Your task to perform on an android device: turn off priority inbox in the gmail app Image 0: 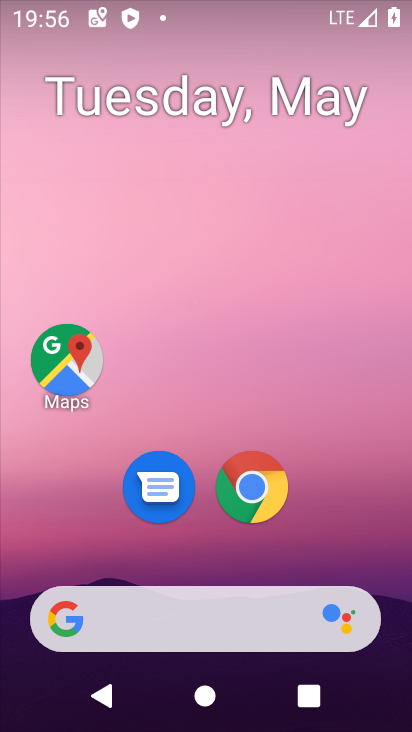
Step 0: drag from (325, 494) to (260, 116)
Your task to perform on an android device: turn off priority inbox in the gmail app Image 1: 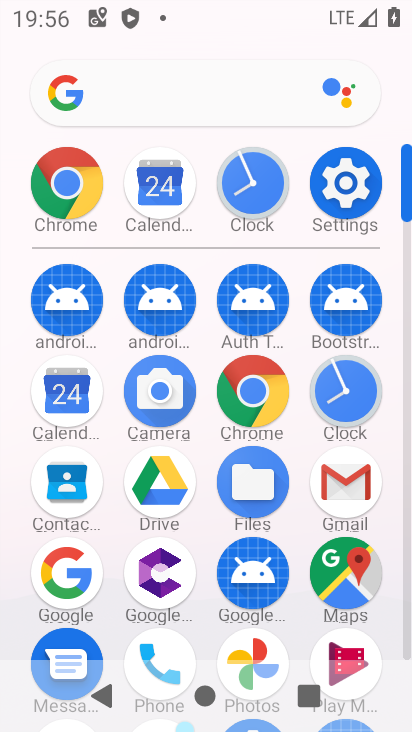
Step 1: click (346, 480)
Your task to perform on an android device: turn off priority inbox in the gmail app Image 2: 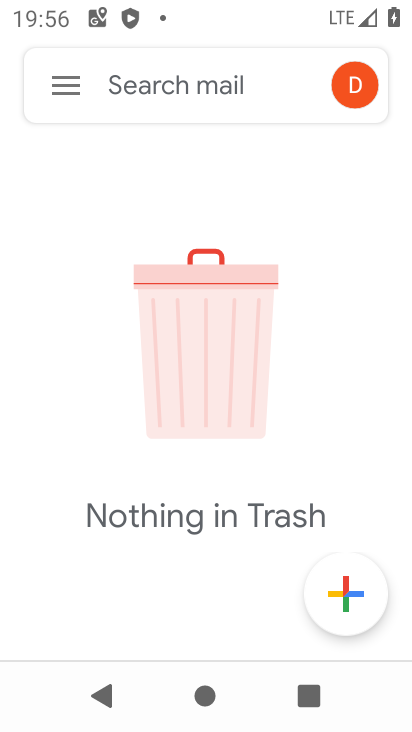
Step 2: click (67, 87)
Your task to perform on an android device: turn off priority inbox in the gmail app Image 3: 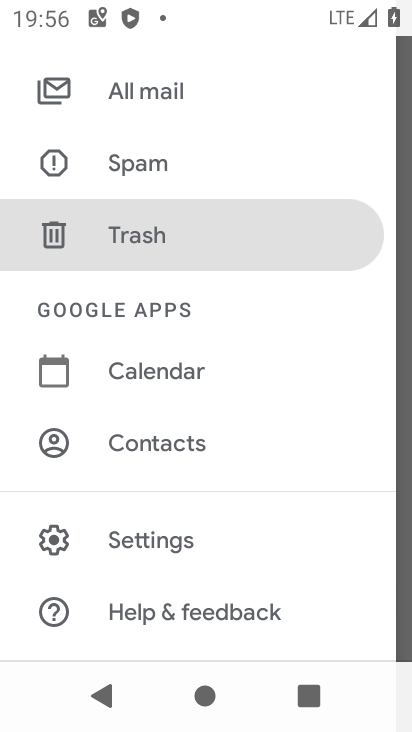
Step 3: click (148, 535)
Your task to perform on an android device: turn off priority inbox in the gmail app Image 4: 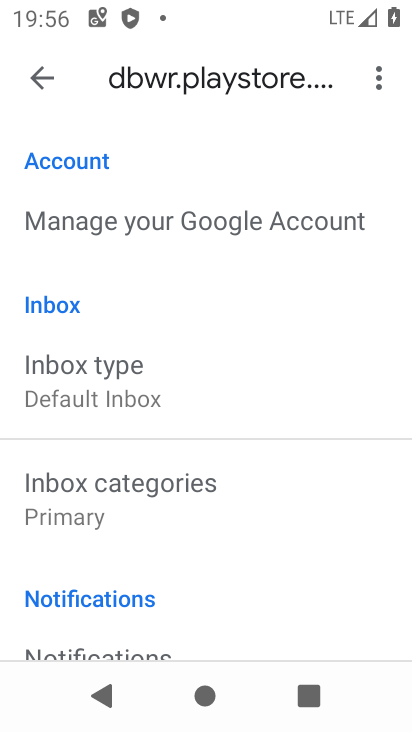
Step 4: click (92, 363)
Your task to perform on an android device: turn off priority inbox in the gmail app Image 5: 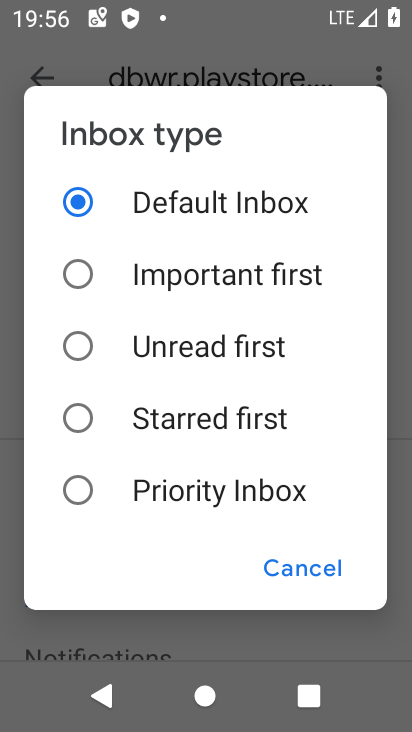
Step 5: task complete